Your task to perform on an android device: turn off smart reply in the gmail app Image 0: 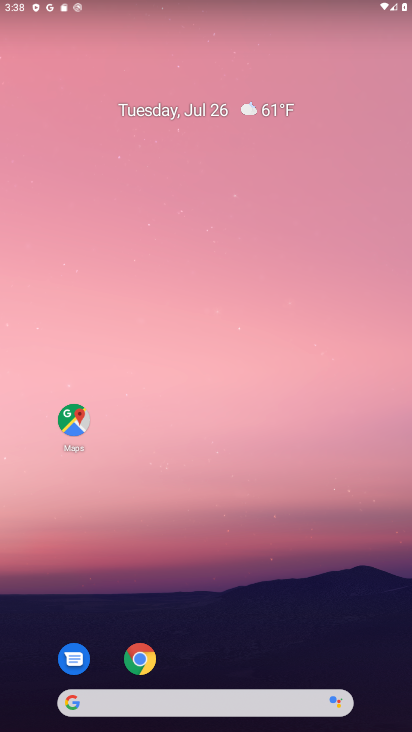
Step 0: drag from (343, 592) to (256, 24)
Your task to perform on an android device: turn off smart reply in the gmail app Image 1: 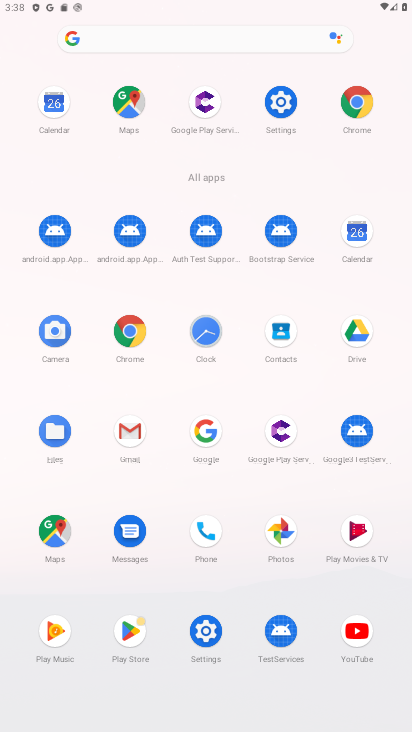
Step 1: click (136, 431)
Your task to perform on an android device: turn off smart reply in the gmail app Image 2: 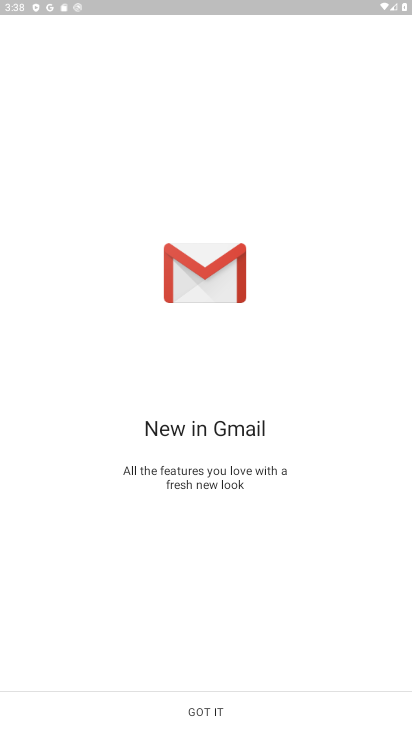
Step 2: click (262, 714)
Your task to perform on an android device: turn off smart reply in the gmail app Image 3: 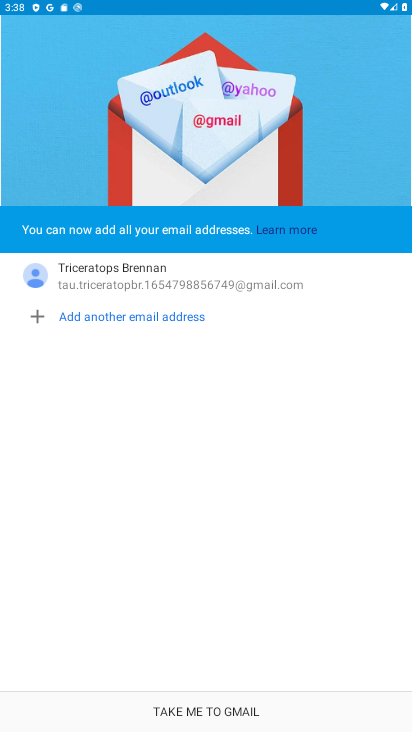
Step 3: click (213, 710)
Your task to perform on an android device: turn off smart reply in the gmail app Image 4: 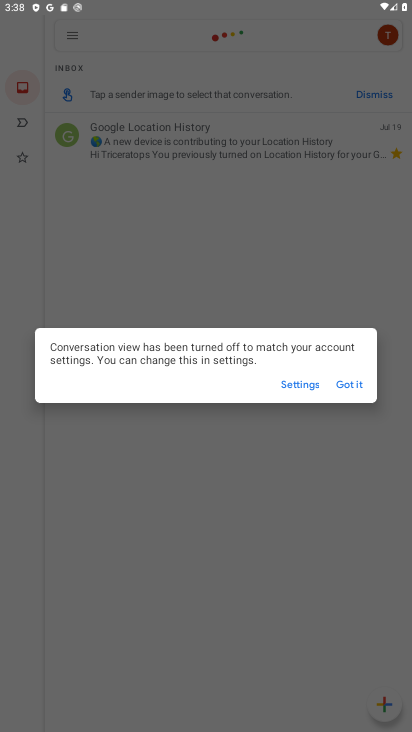
Step 4: click (352, 380)
Your task to perform on an android device: turn off smart reply in the gmail app Image 5: 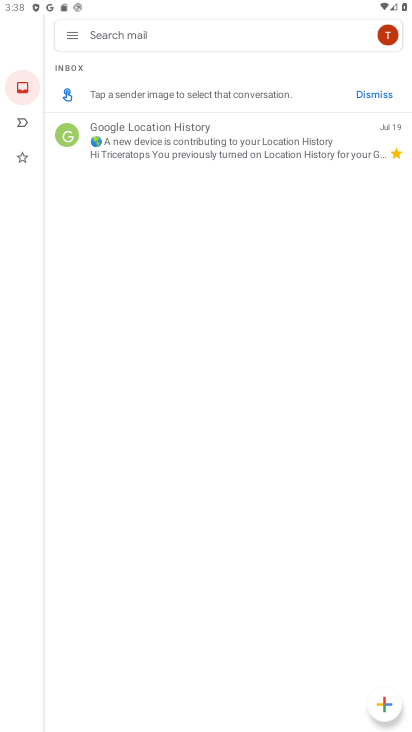
Step 5: click (67, 35)
Your task to perform on an android device: turn off smart reply in the gmail app Image 6: 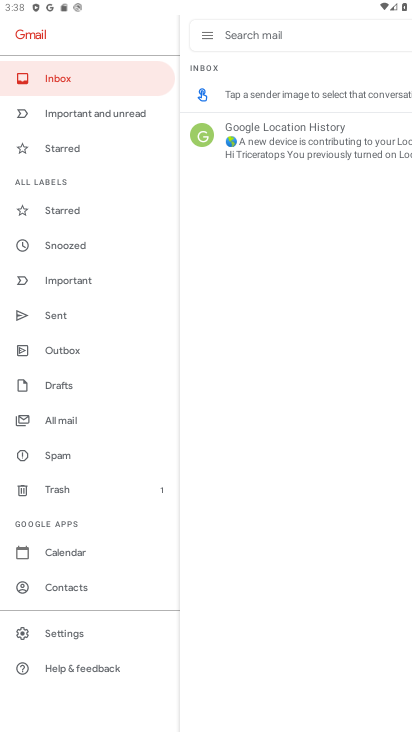
Step 6: click (93, 637)
Your task to perform on an android device: turn off smart reply in the gmail app Image 7: 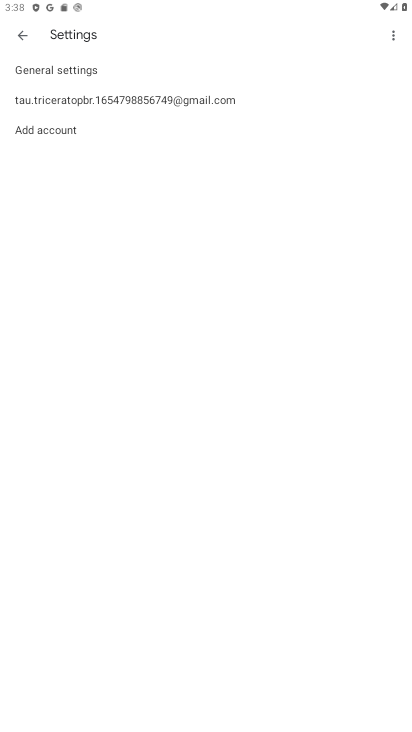
Step 7: click (164, 110)
Your task to perform on an android device: turn off smart reply in the gmail app Image 8: 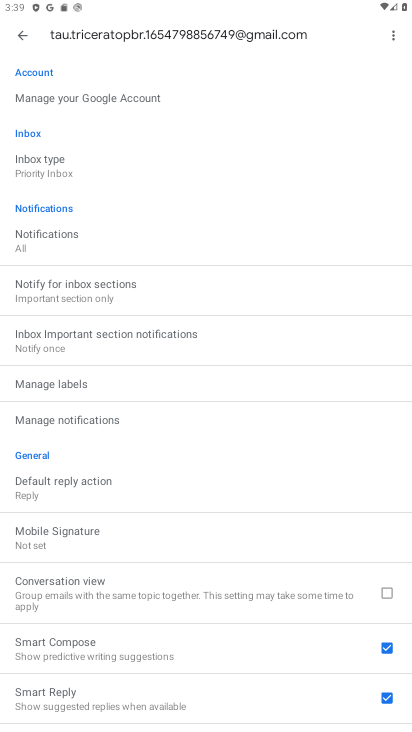
Step 8: click (389, 697)
Your task to perform on an android device: turn off smart reply in the gmail app Image 9: 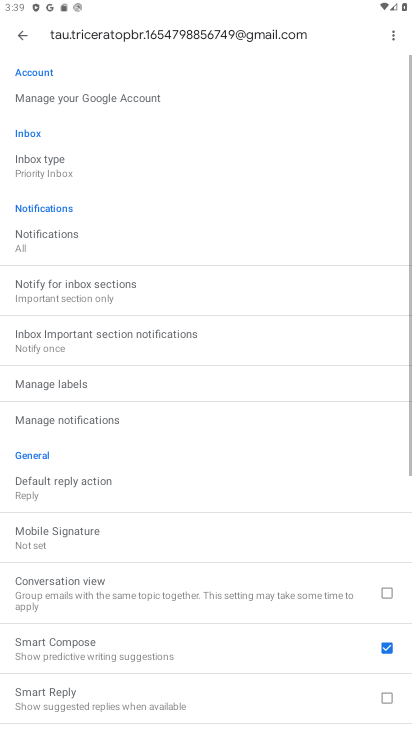
Step 9: task complete